Your task to perform on an android device: What's the weather going to be this weekend? Image 0: 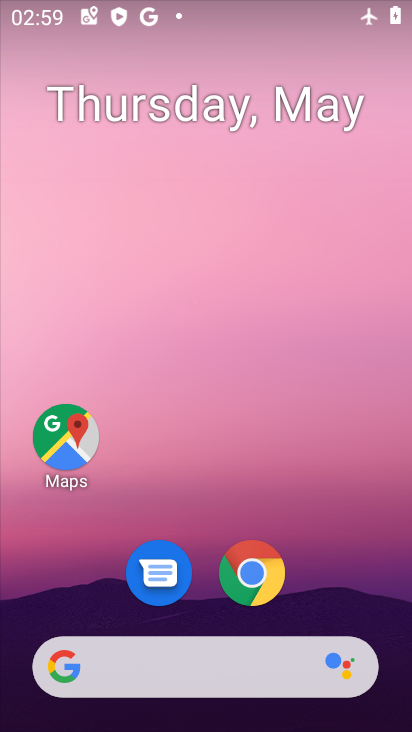
Step 0: drag from (305, 518) to (304, 344)
Your task to perform on an android device: What's the weather going to be this weekend? Image 1: 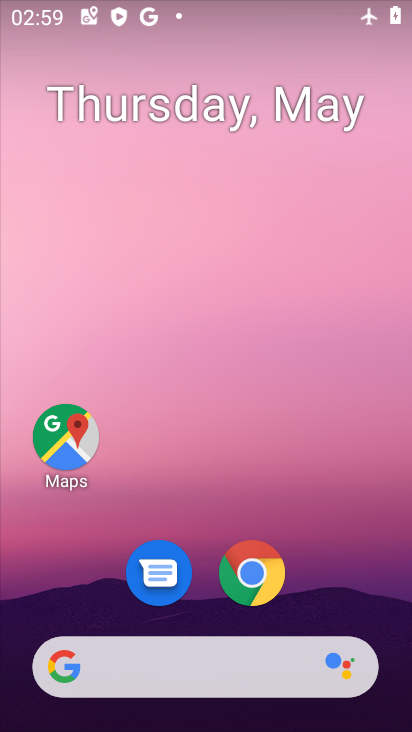
Step 1: click (258, 561)
Your task to perform on an android device: What's the weather going to be this weekend? Image 2: 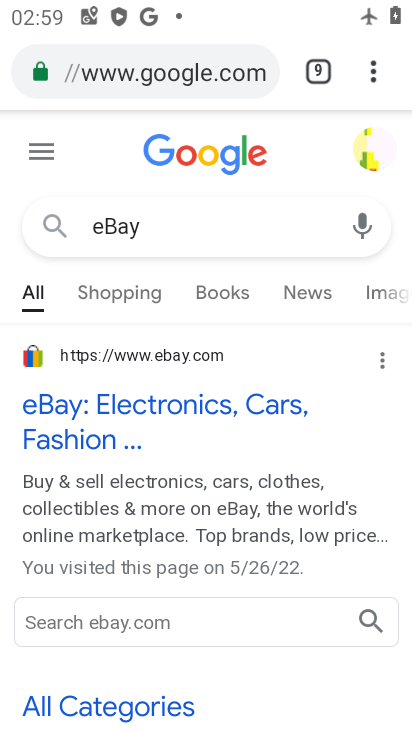
Step 2: click (363, 72)
Your task to perform on an android device: What's the weather going to be this weekend? Image 3: 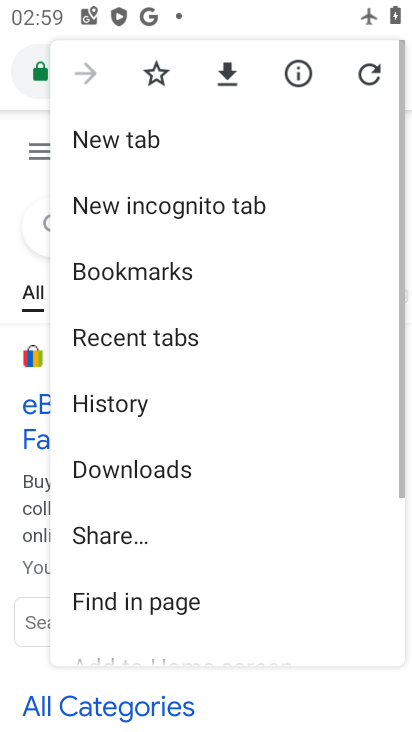
Step 3: click (140, 130)
Your task to perform on an android device: What's the weather going to be this weekend? Image 4: 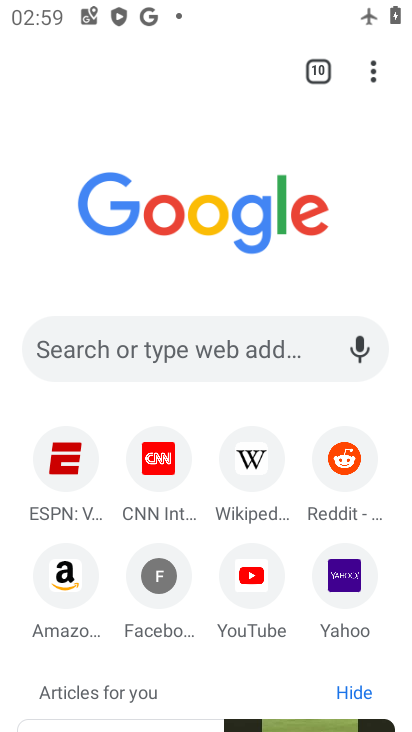
Step 4: click (249, 330)
Your task to perform on an android device: What's the weather going to be this weekend? Image 5: 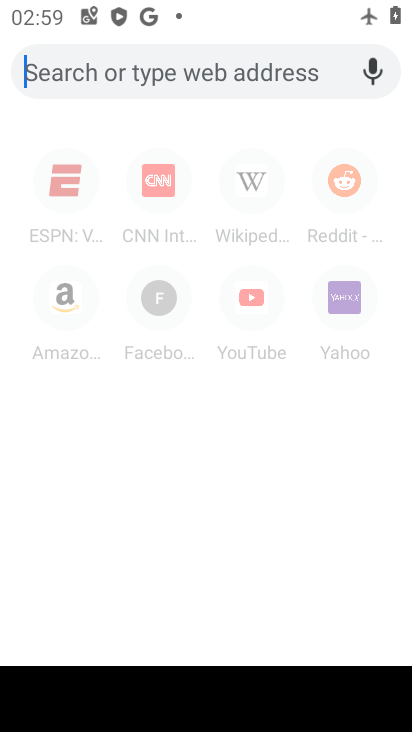
Step 5: type "What's the weather going to be this weekend?"
Your task to perform on an android device: What's the weather going to be this weekend? Image 6: 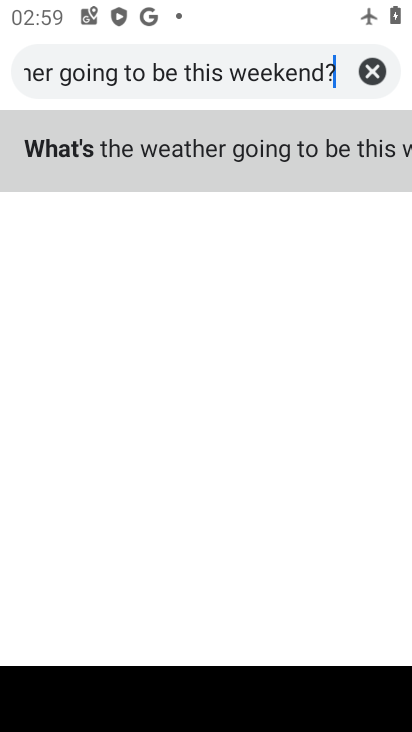
Step 6: click (180, 140)
Your task to perform on an android device: What's the weather going to be this weekend? Image 7: 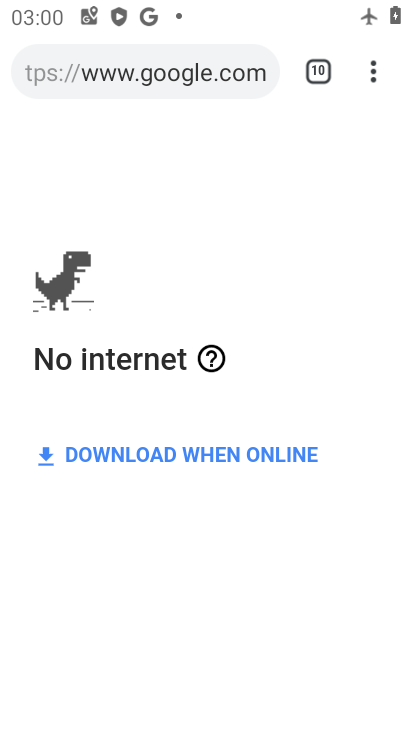
Step 7: task complete